Your task to perform on an android device: Go to notification settings Image 0: 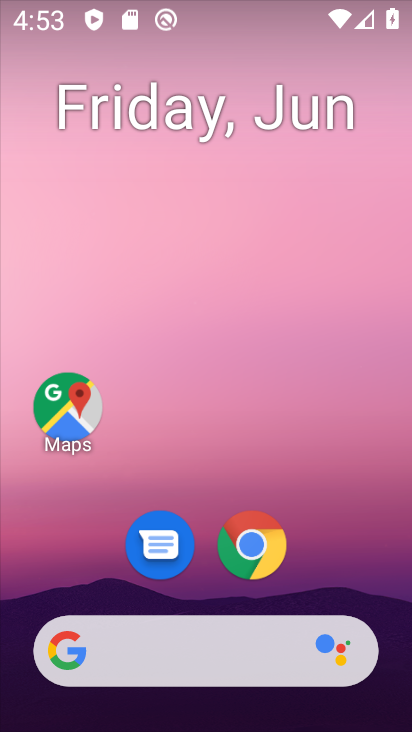
Step 0: drag from (233, 618) to (272, 179)
Your task to perform on an android device: Go to notification settings Image 1: 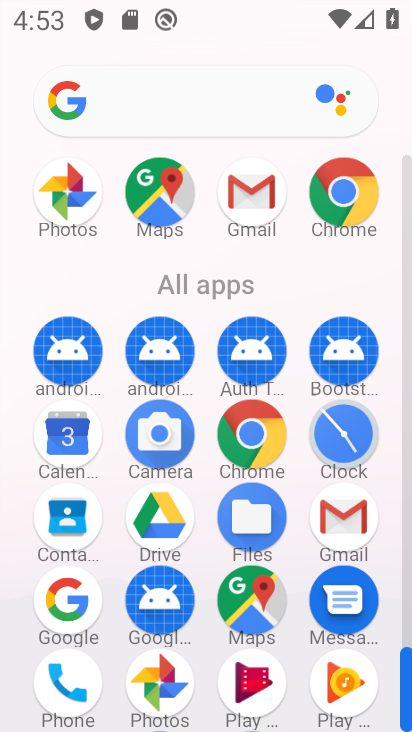
Step 1: drag from (210, 554) to (234, 224)
Your task to perform on an android device: Go to notification settings Image 2: 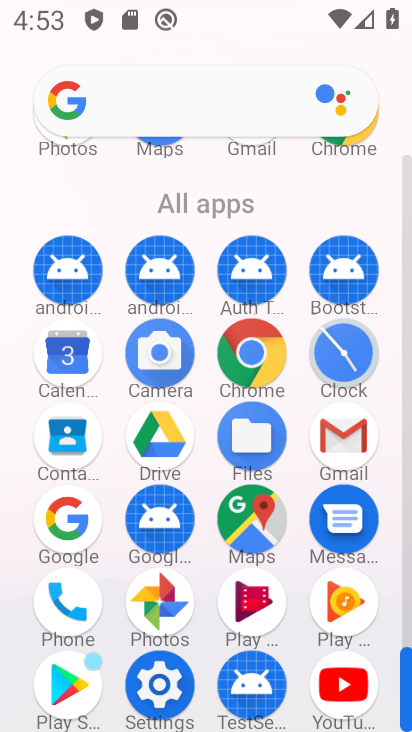
Step 2: click (152, 674)
Your task to perform on an android device: Go to notification settings Image 3: 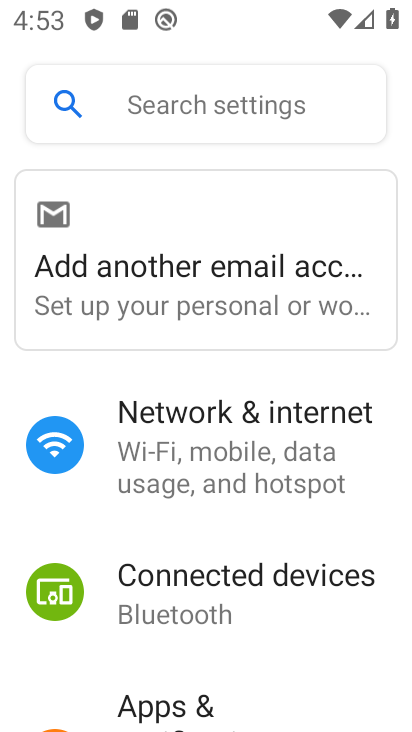
Step 3: drag from (235, 677) to (278, 343)
Your task to perform on an android device: Go to notification settings Image 4: 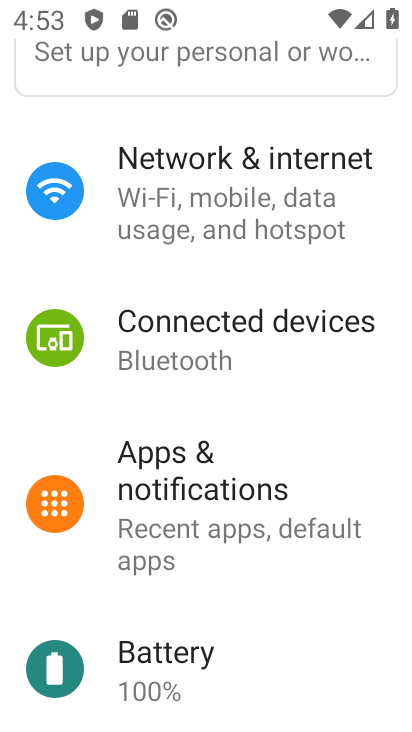
Step 4: click (195, 489)
Your task to perform on an android device: Go to notification settings Image 5: 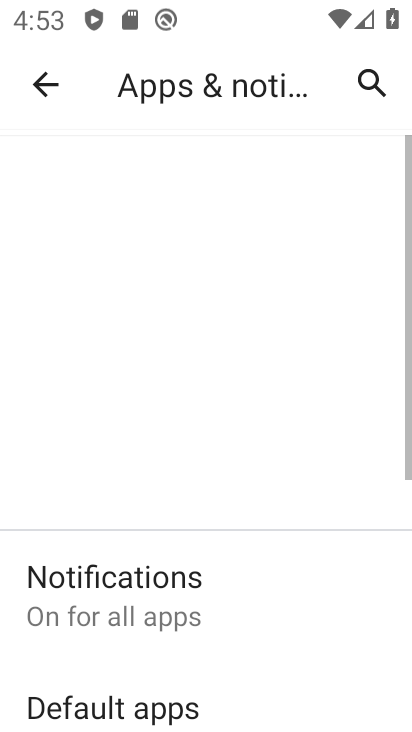
Step 5: click (143, 589)
Your task to perform on an android device: Go to notification settings Image 6: 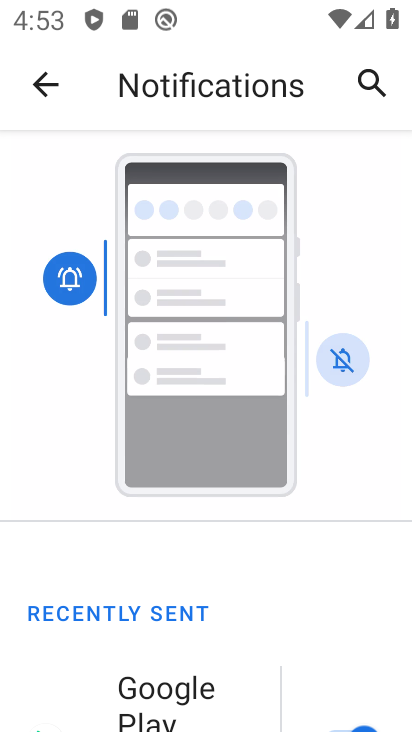
Step 6: click (326, 279)
Your task to perform on an android device: Go to notification settings Image 7: 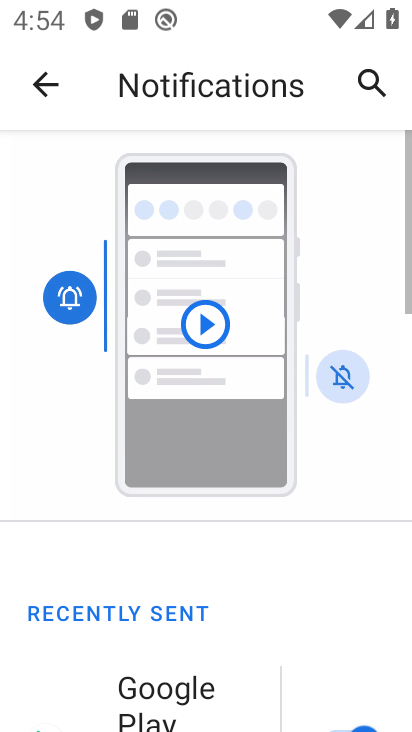
Step 7: task complete